Your task to perform on an android device: Go to Yahoo.com Image 0: 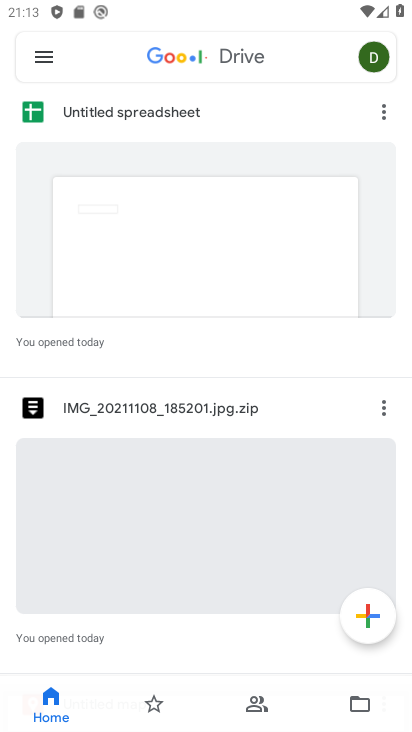
Step 0: press home button
Your task to perform on an android device: Go to Yahoo.com Image 1: 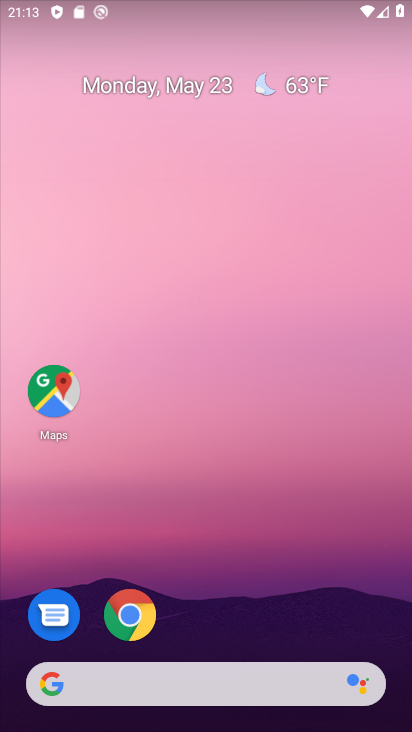
Step 1: click (129, 617)
Your task to perform on an android device: Go to Yahoo.com Image 2: 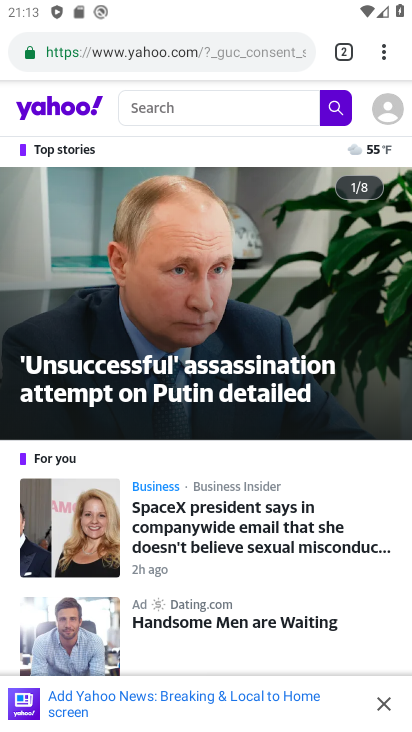
Step 2: task complete